Your task to perform on an android device: set the timer Image 0: 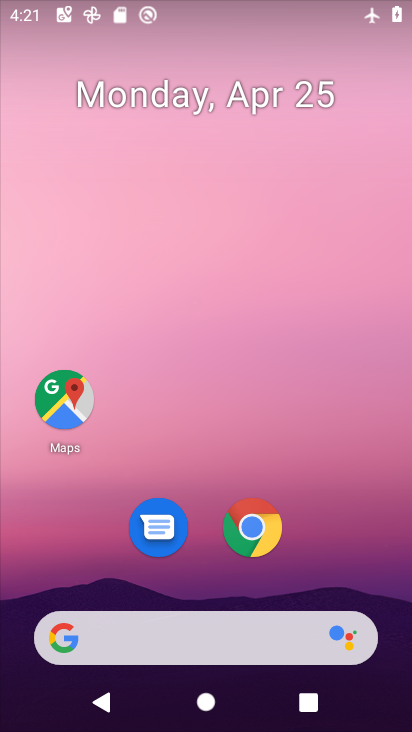
Step 0: drag from (390, 616) to (336, 62)
Your task to perform on an android device: set the timer Image 1: 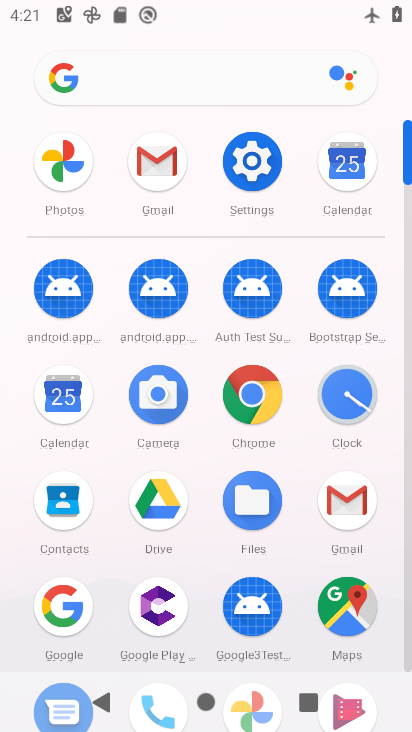
Step 1: click (407, 649)
Your task to perform on an android device: set the timer Image 2: 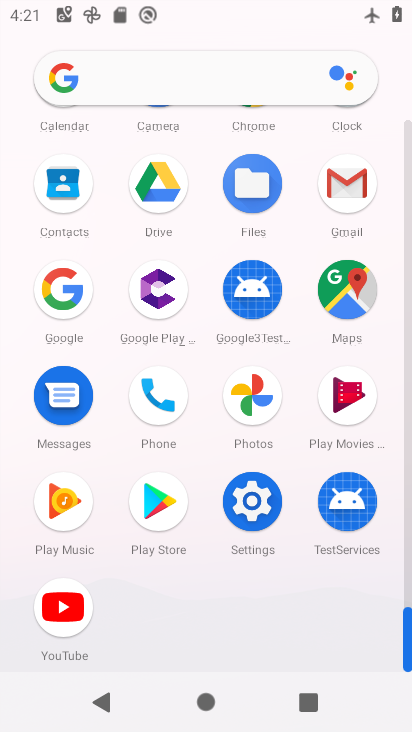
Step 2: click (406, 249)
Your task to perform on an android device: set the timer Image 3: 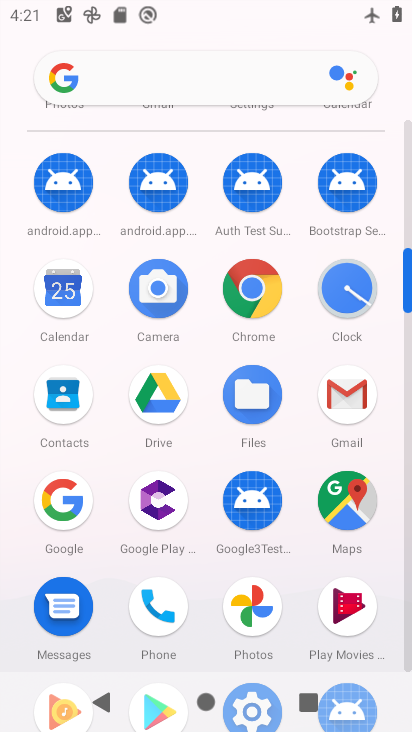
Step 3: click (344, 283)
Your task to perform on an android device: set the timer Image 4: 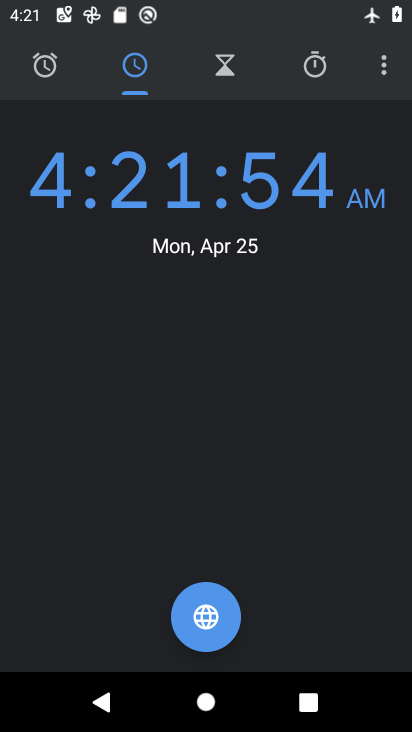
Step 4: click (226, 69)
Your task to perform on an android device: set the timer Image 5: 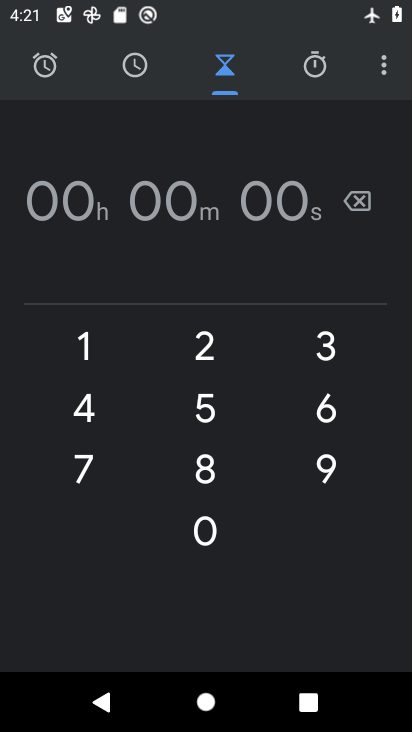
Step 5: click (82, 340)
Your task to perform on an android device: set the timer Image 6: 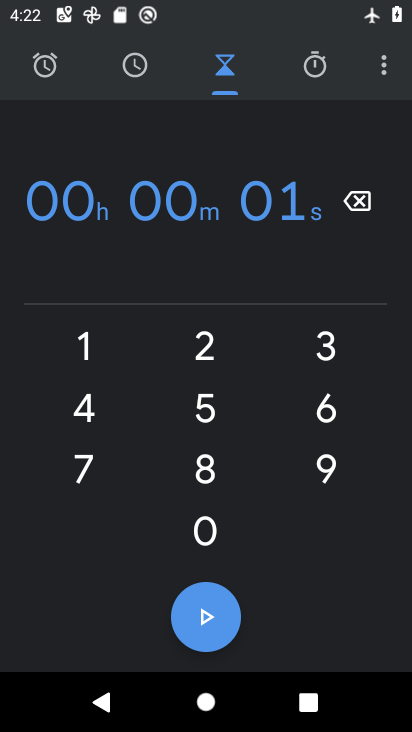
Step 6: click (333, 340)
Your task to perform on an android device: set the timer Image 7: 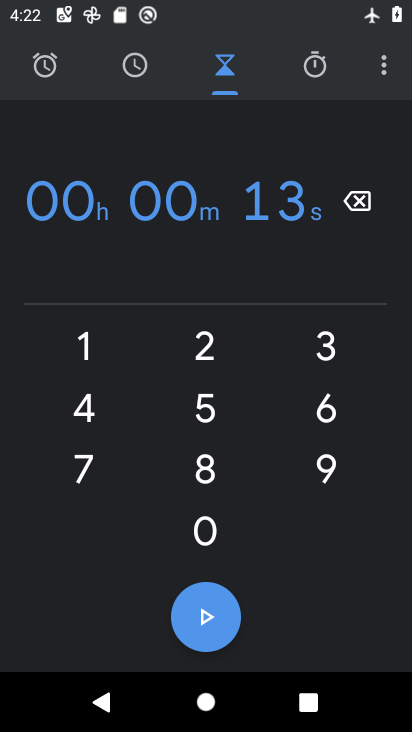
Step 7: click (220, 513)
Your task to perform on an android device: set the timer Image 8: 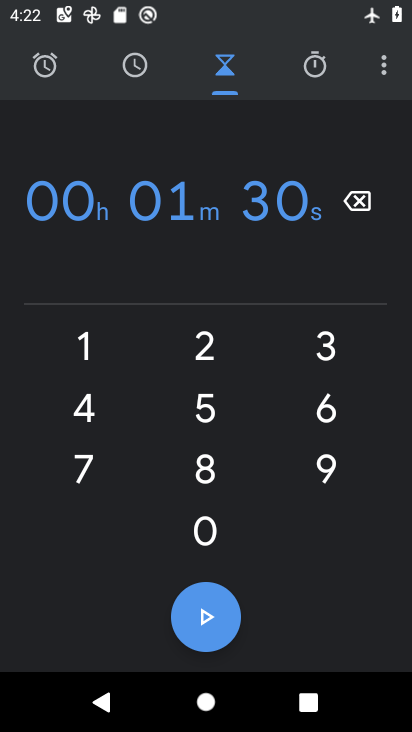
Step 8: click (220, 513)
Your task to perform on an android device: set the timer Image 9: 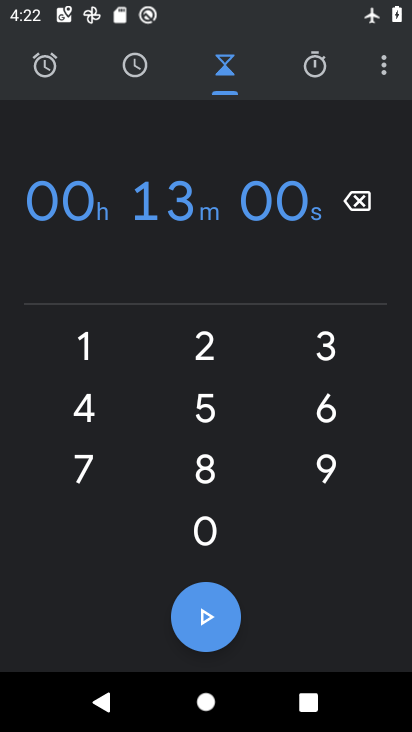
Step 9: click (220, 513)
Your task to perform on an android device: set the timer Image 10: 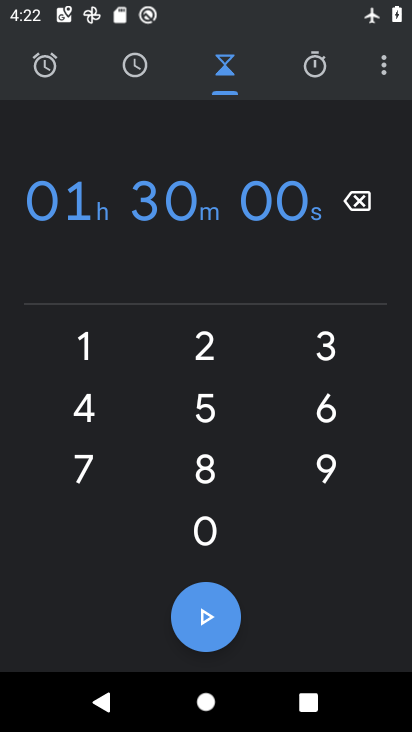
Step 10: task complete